Your task to perform on an android device: open app "Etsy: Buy & Sell Unique Items" (install if not already installed) Image 0: 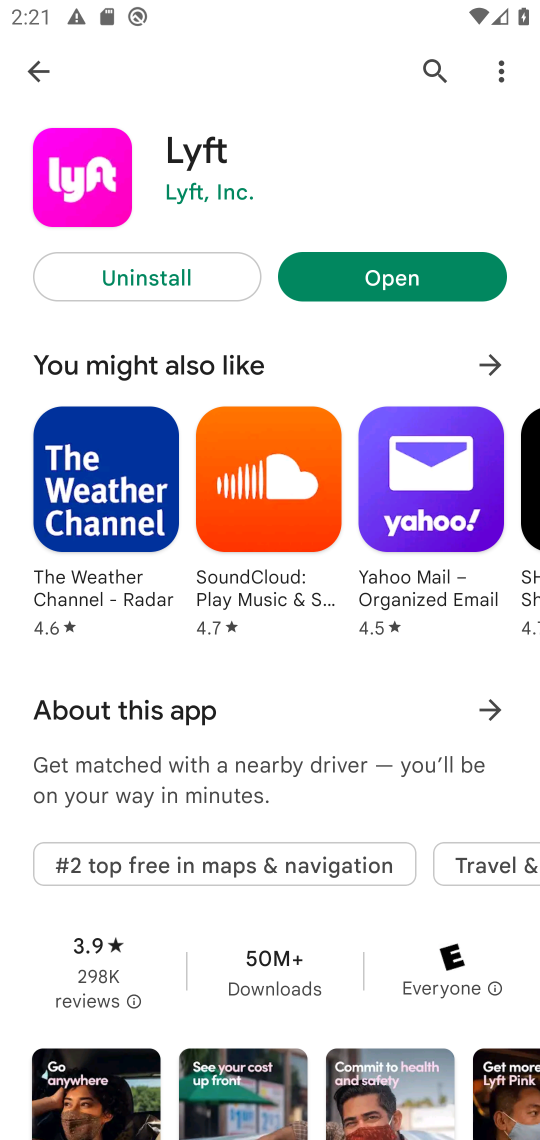
Step 0: click (439, 68)
Your task to perform on an android device: open app "Etsy: Buy & Sell Unique Items" (install if not already installed) Image 1: 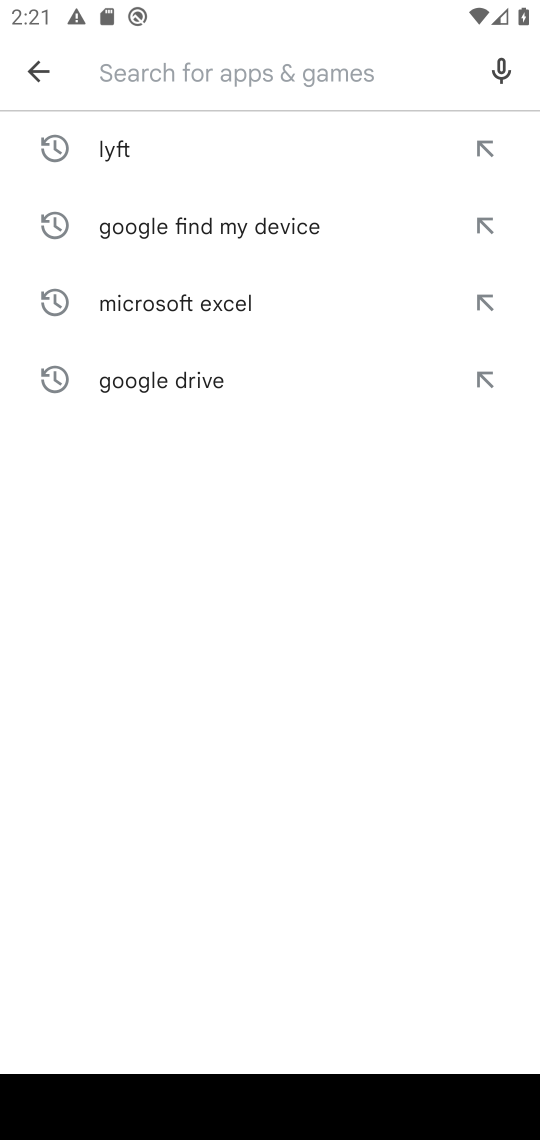
Step 1: type "Etsy: Buy & Sell Unique Items"
Your task to perform on an android device: open app "Etsy: Buy & Sell Unique Items" (install if not already installed) Image 2: 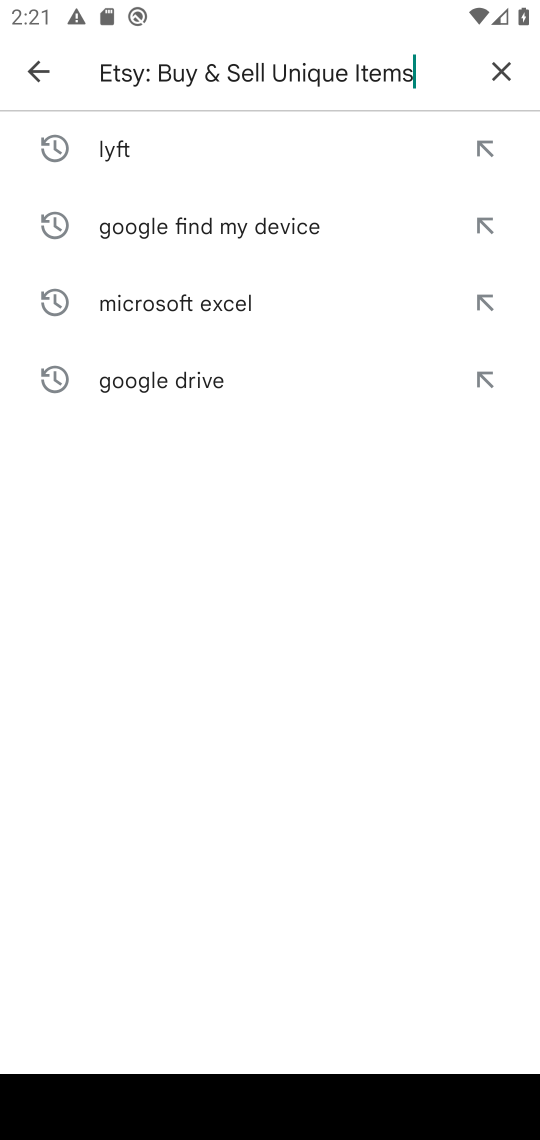
Step 2: type ""
Your task to perform on an android device: open app "Etsy: Buy & Sell Unique Items" (install if not already installed) Image 3: 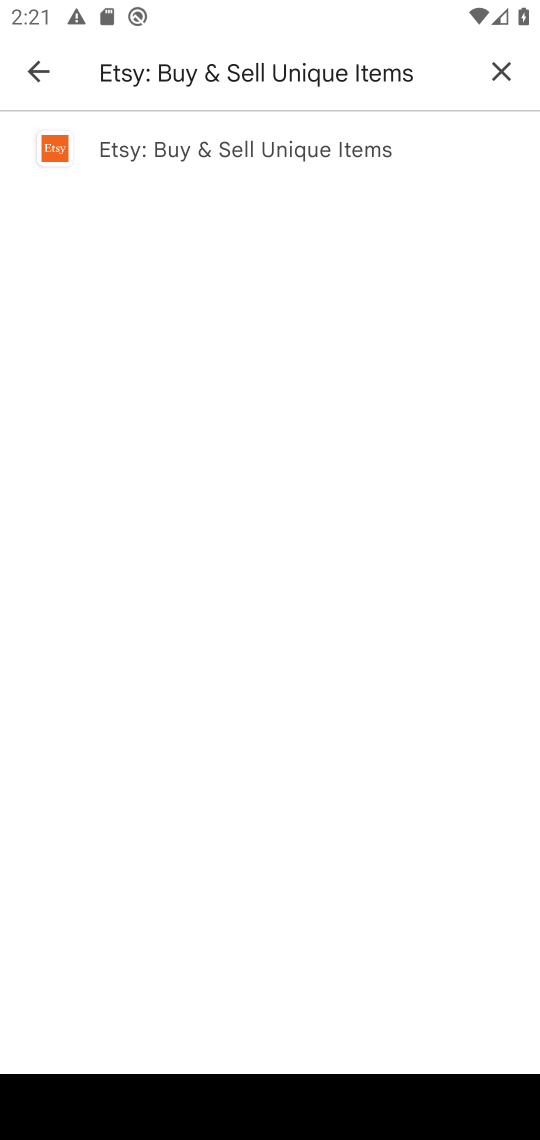
Step 3: click (302, 144)
Your task to perform on an android device: open app "Etsy: Buy & Sell Unique Items" (install if not already installed) Image 4: 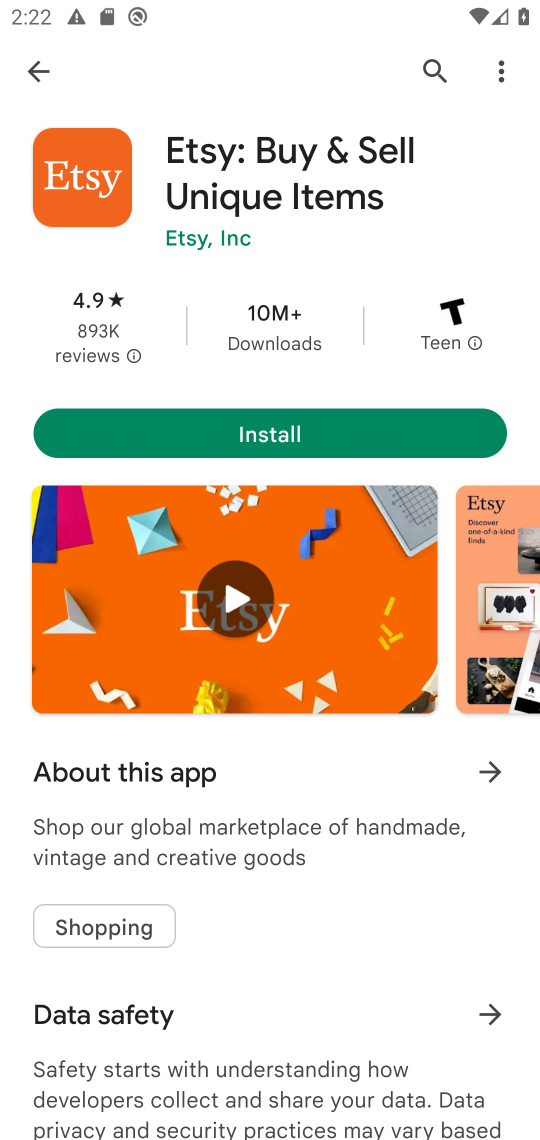
Step 4: click (265, 438)
Your task to perform on an android device: open app "Etsy: Buy & Sell Unique Items" (install if not already installed) Image 5: 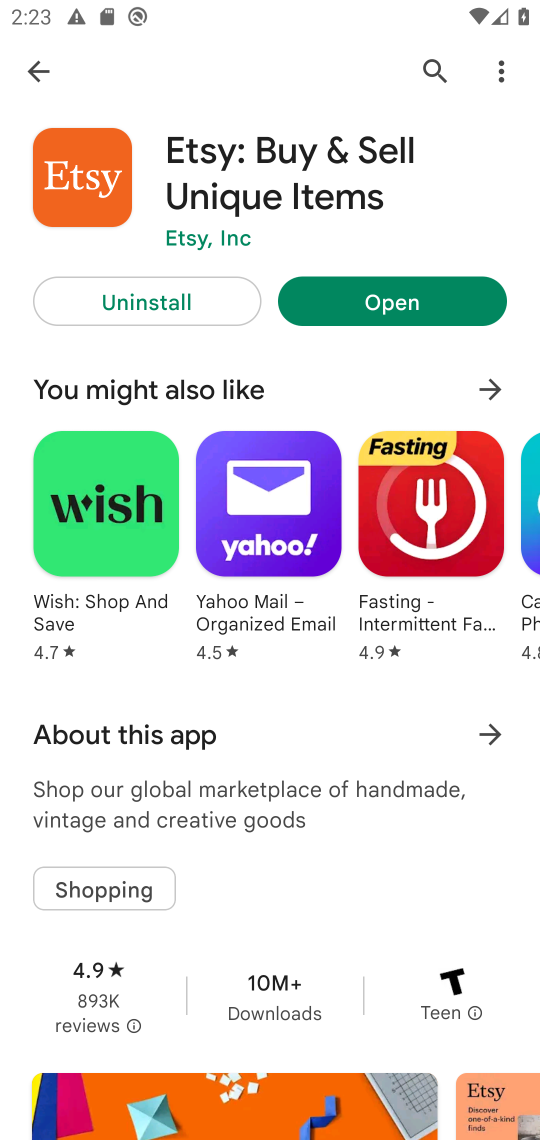
Step 5: click (381, 304)
Your task to perform on an android device: open app "Etsy: Buy & Sell Unique Items" (install if not already installed) Image 6: 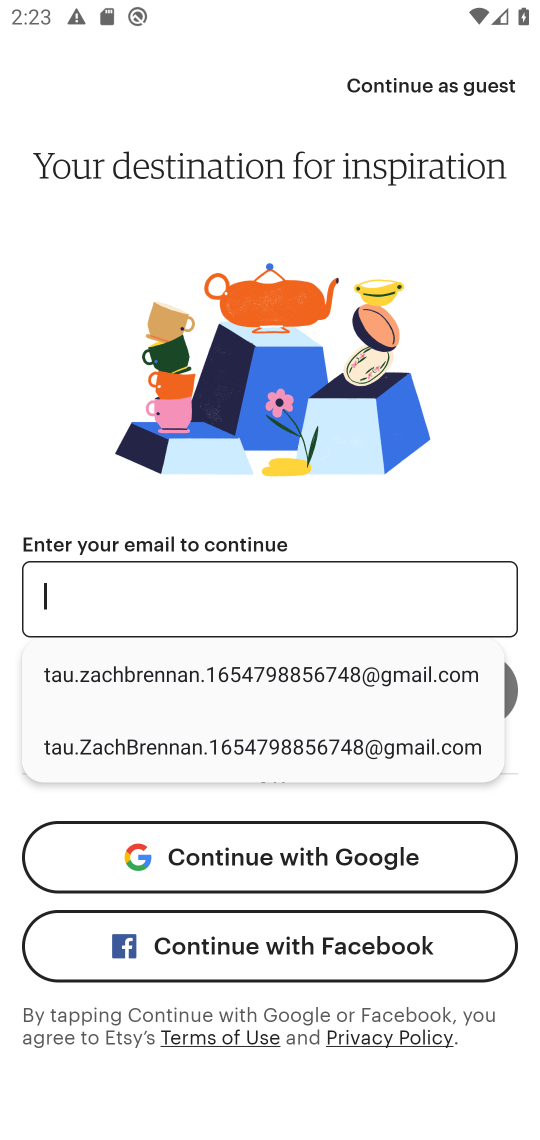
Step 6: click (270, 862)
Your task to perform on an android device: open app "Etsy: Buy & Sell Unique Items" (install if not already installed) Image 7: 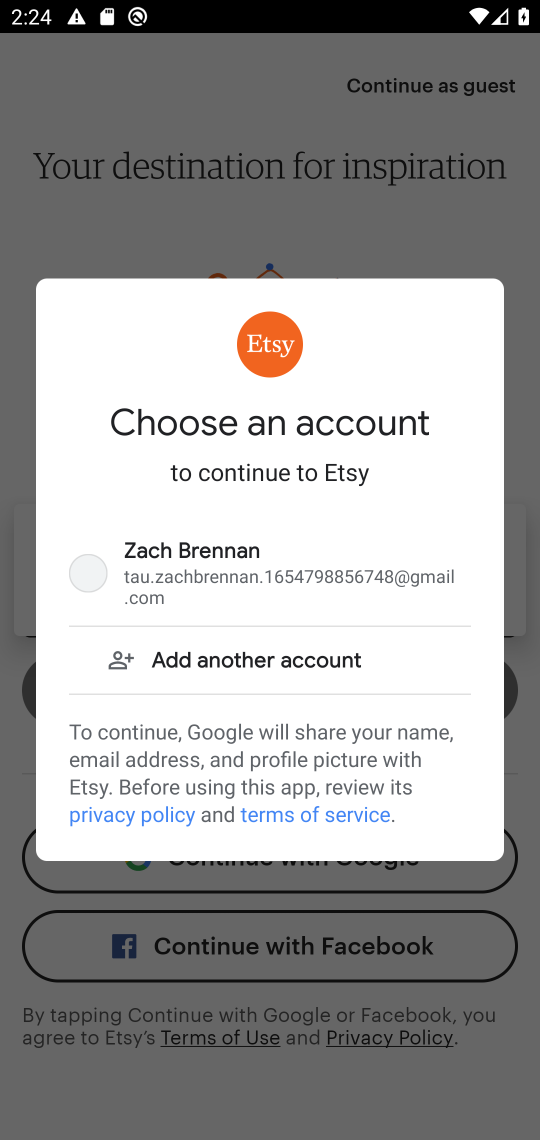
Step 7: click (246, 582)
Your task to perform on an android device: open app "Etsy: Buy & Sell Unique Items" (install if not already installed) Image 8: 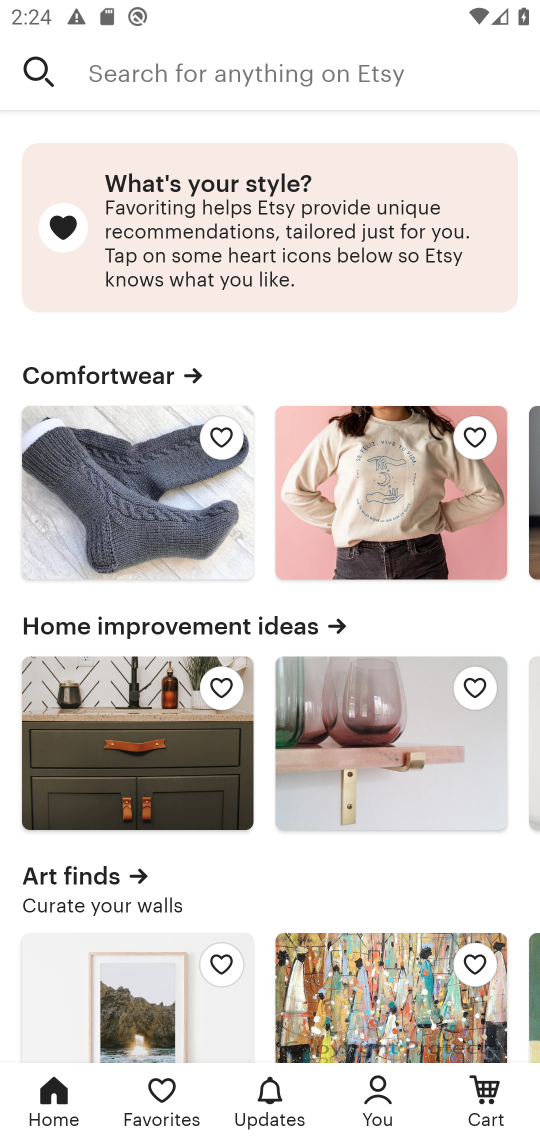
Step 8: task complete